Your task to perform on an android device: install app "Google Home" Image 0: 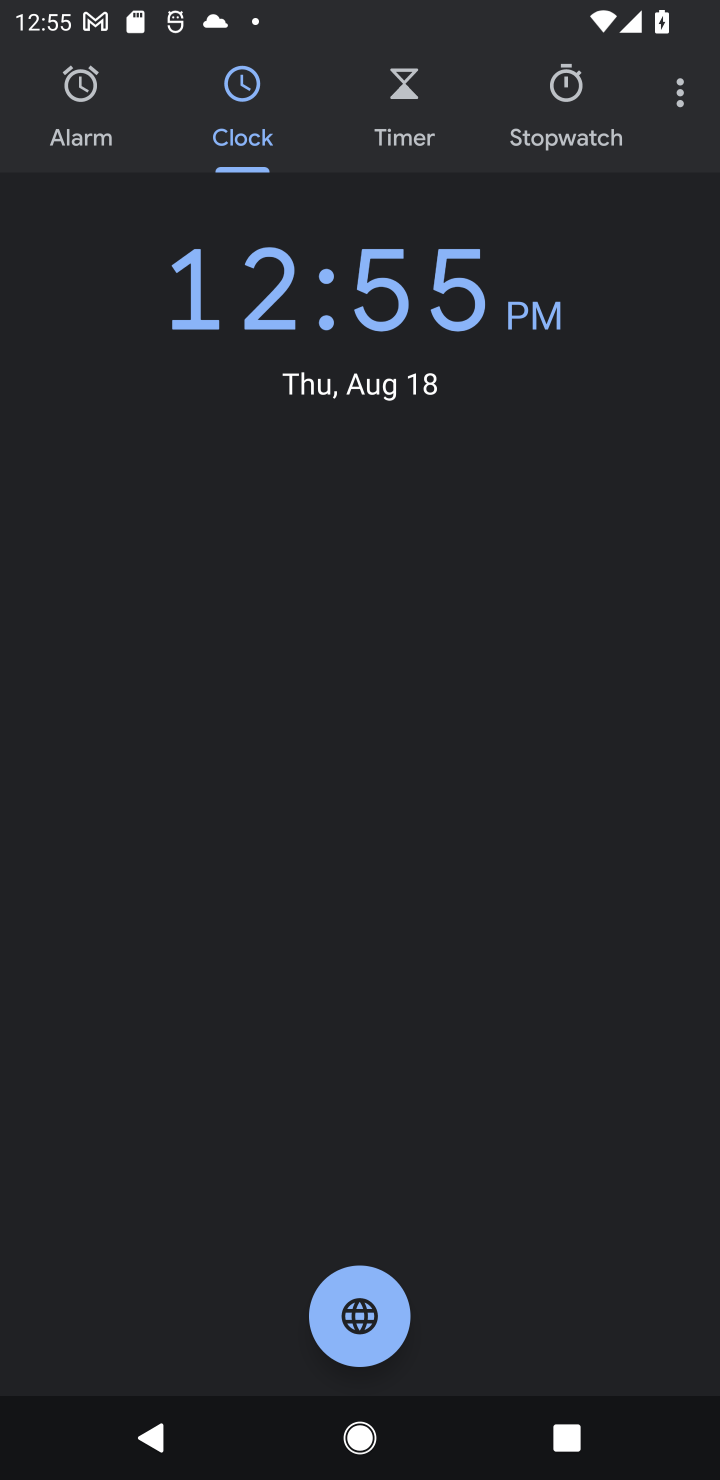
Step 0: press home button
Your task to perform on an android device: install app "Google Home" Image 1: 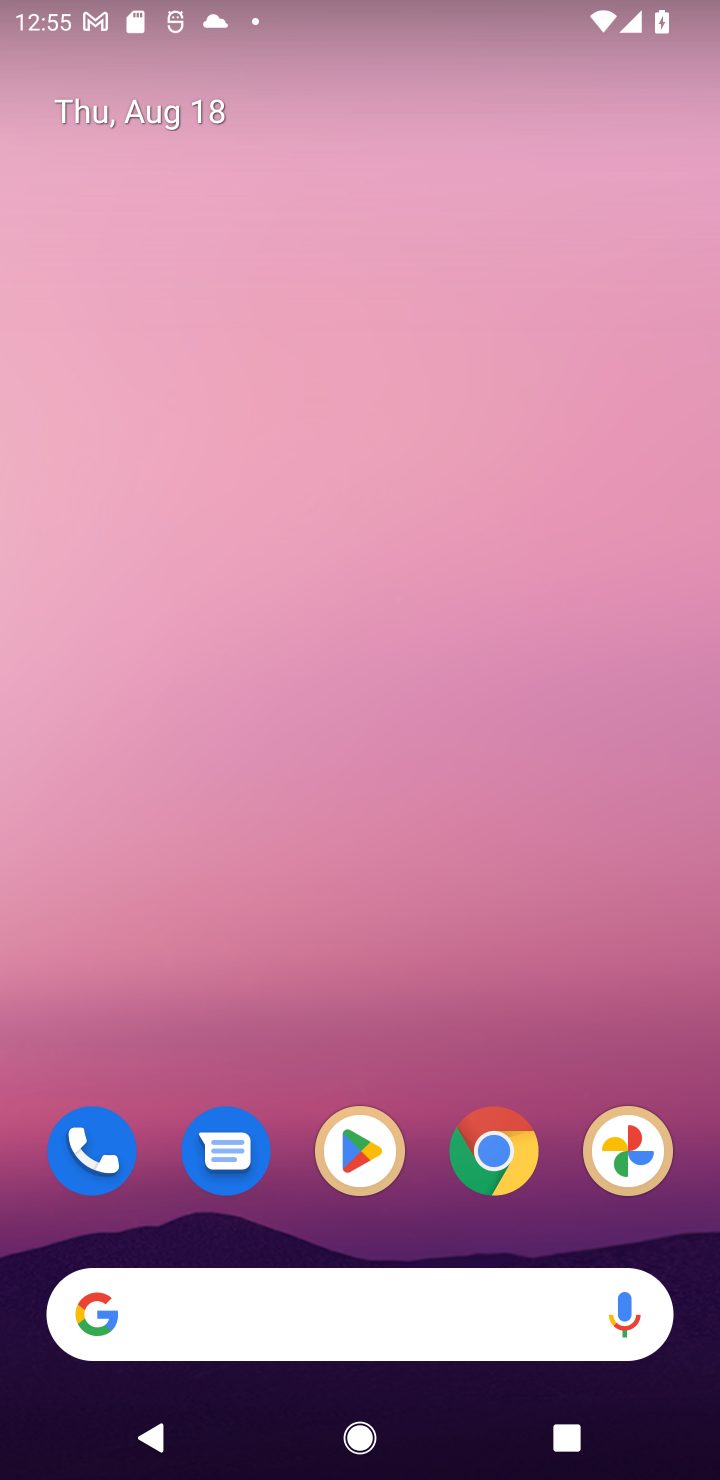
Step 1: drag from (329, 941) to (274, 132)
Your task to perform on an android device: install app "Google Home" Image 2: 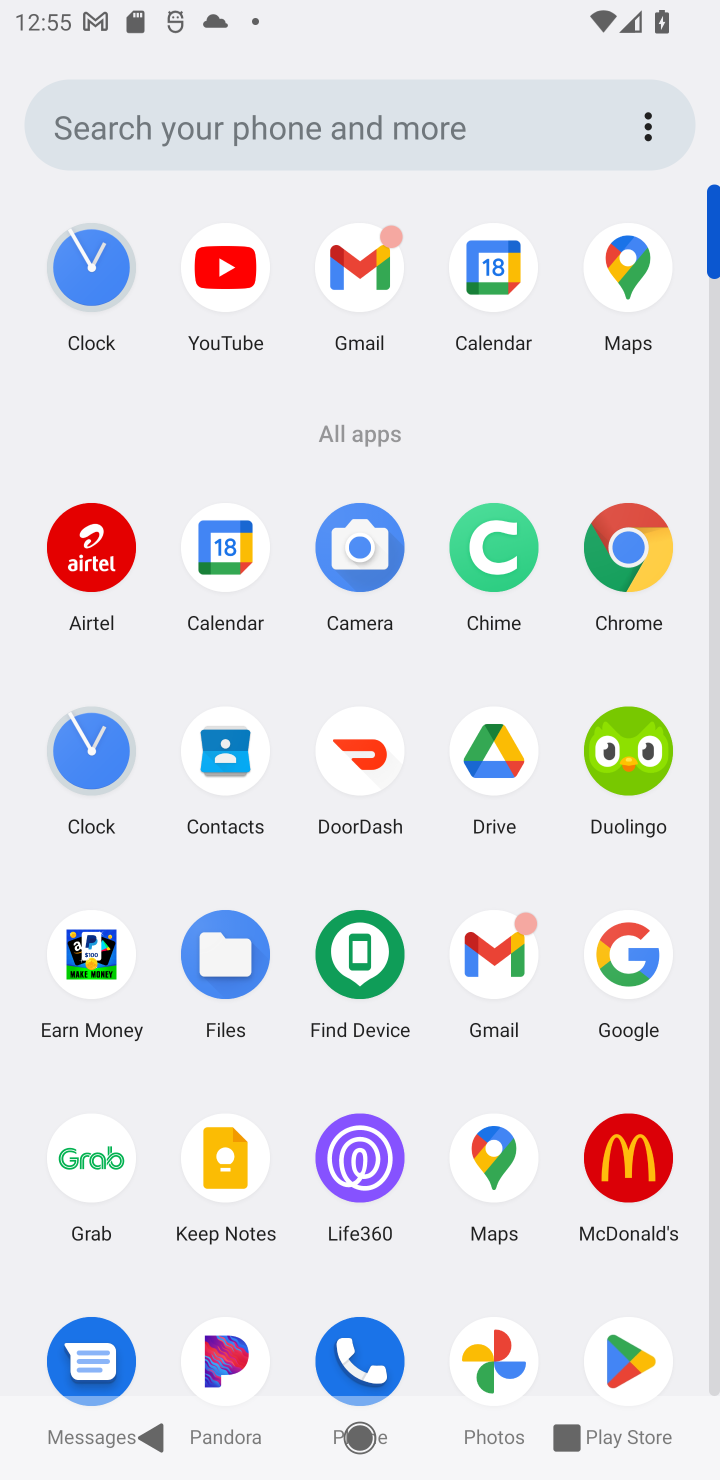
Step 2: click (631, 1345)
Your task to perform on an android device: install app "Google Home" Image 3: 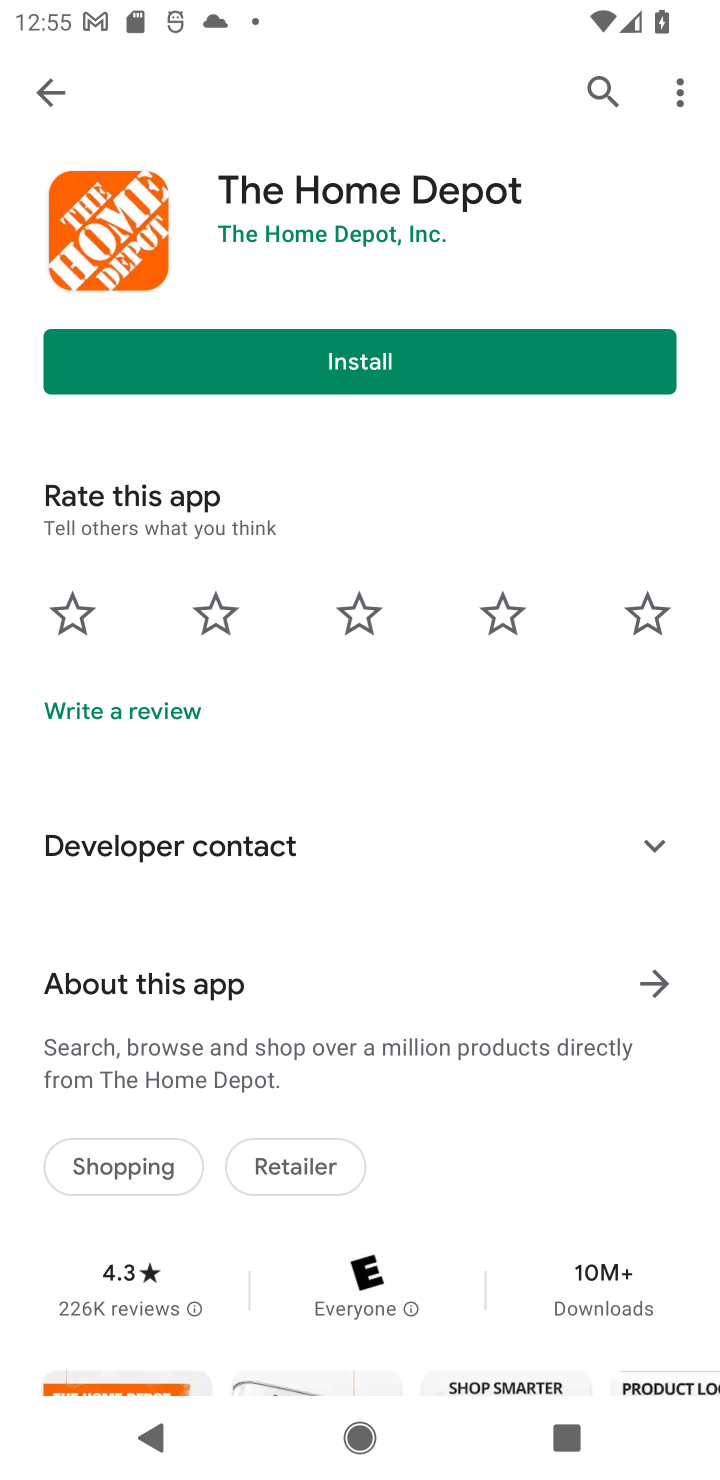
Step 3: click (38, 101)
Your task to perform on an android device: install app "Google Home" Image 4: 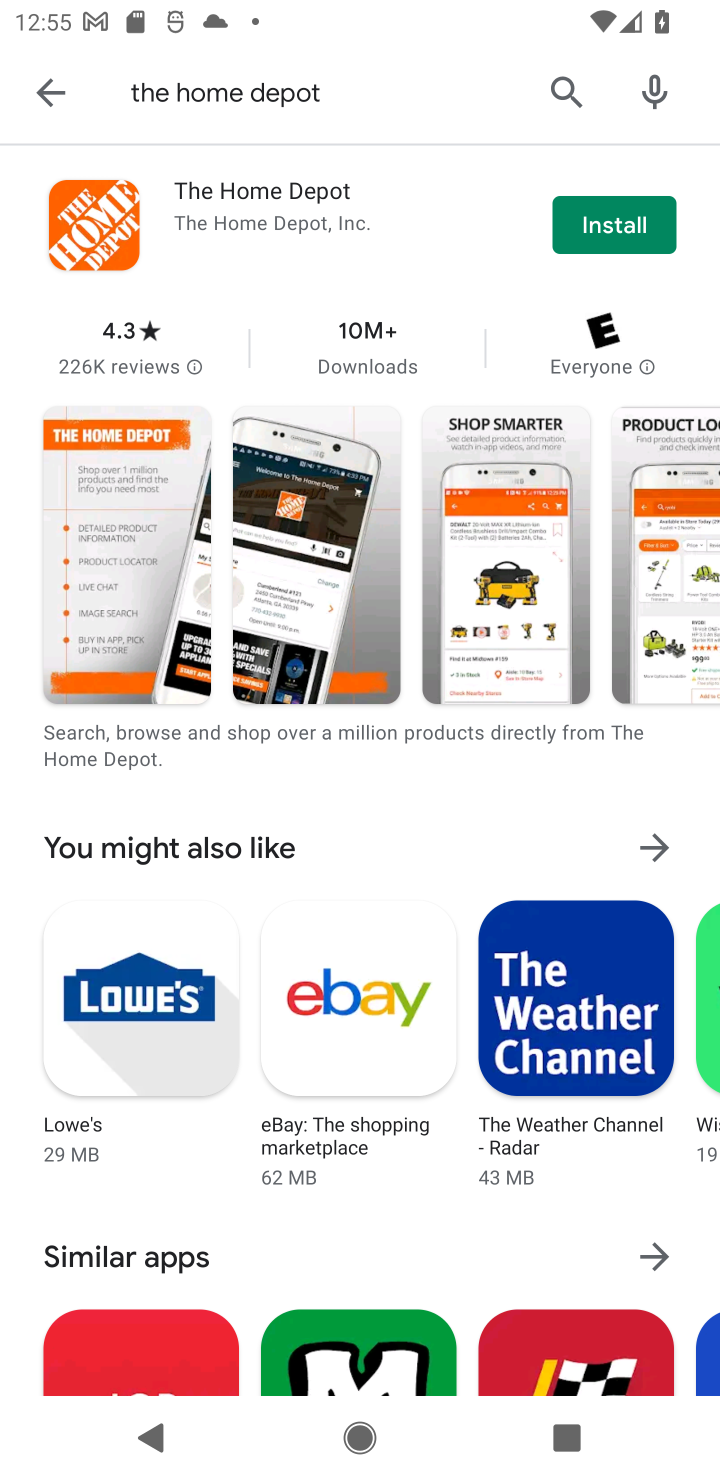
Step 4: click (47, 91)
Your task to perform on an android device: install app "Google Home" Image 5: 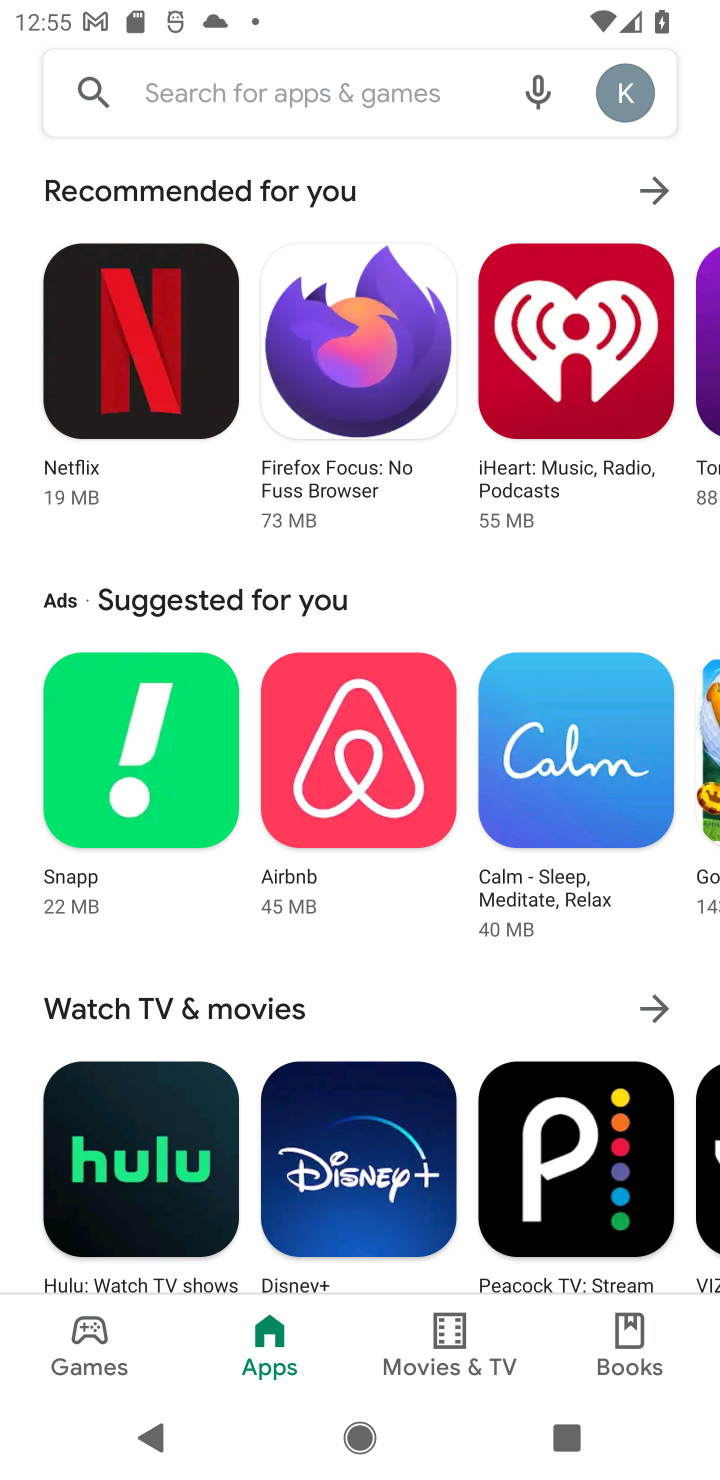
Step 5: click (259, 91)
Your task to perform on an android device: install app "Google Home" Image 6: 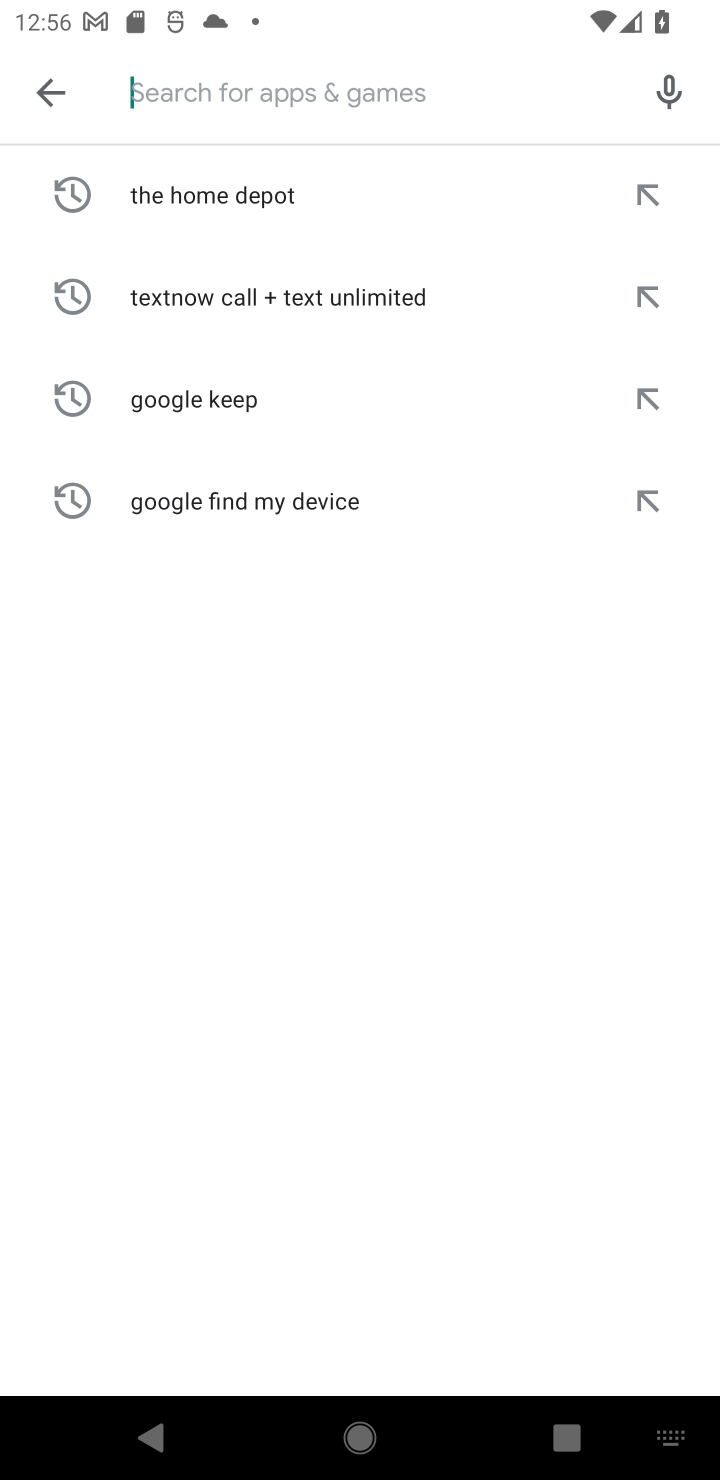
Step 6: type "Google Home"
Your task to perform on an android device: install app "Google Home" Image 7: 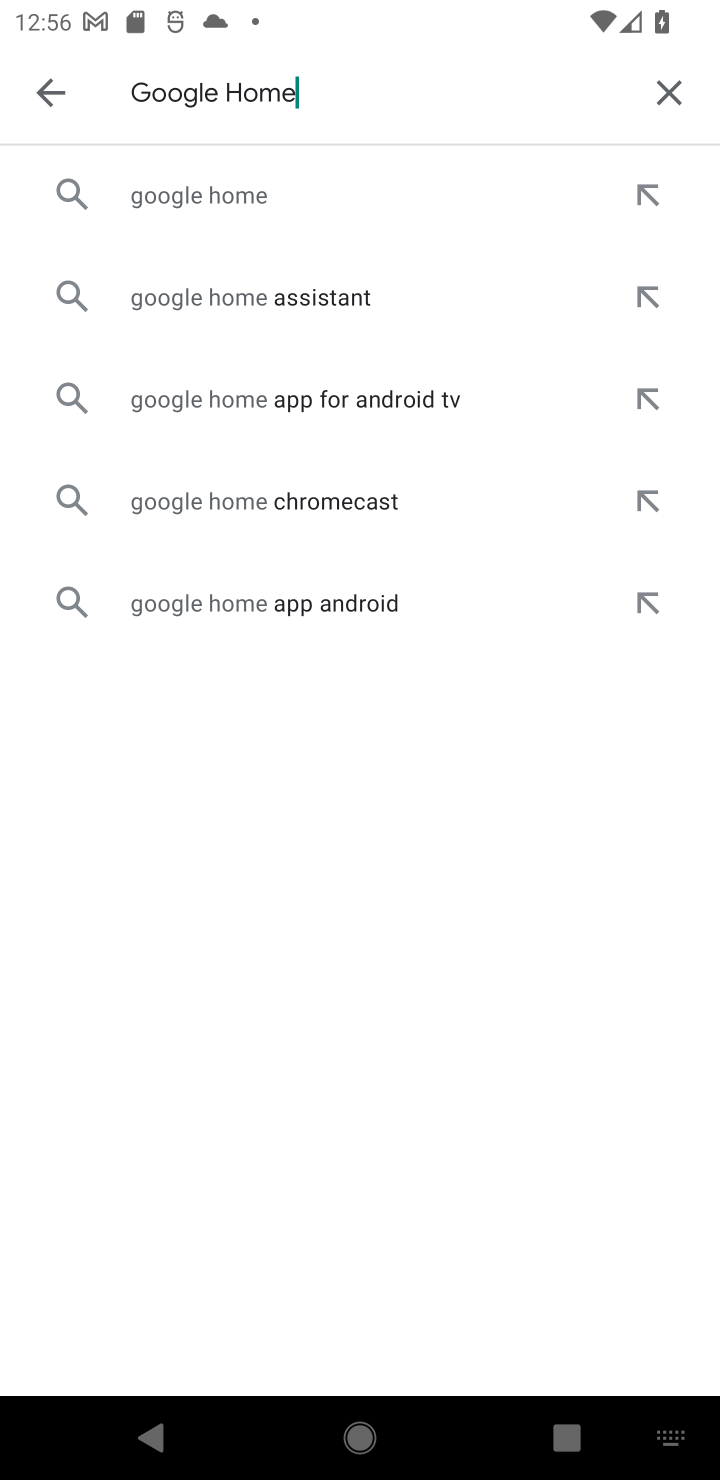
Step 7: click (234, 202)
Your task to perform on an android device: install app "Google Home" Image 8: 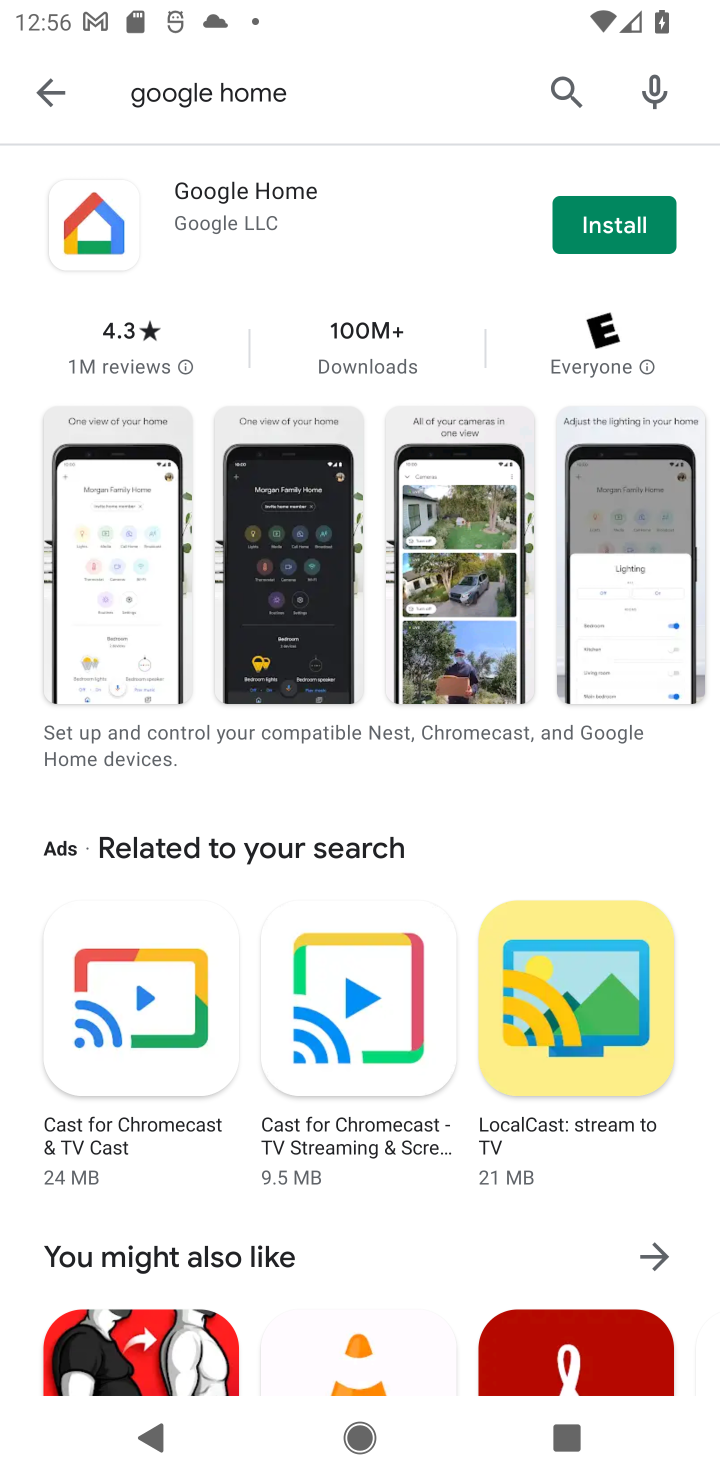
Step 8: click (559, 230)
Your task to perform on an android device: install app "Google Home" Image 9: 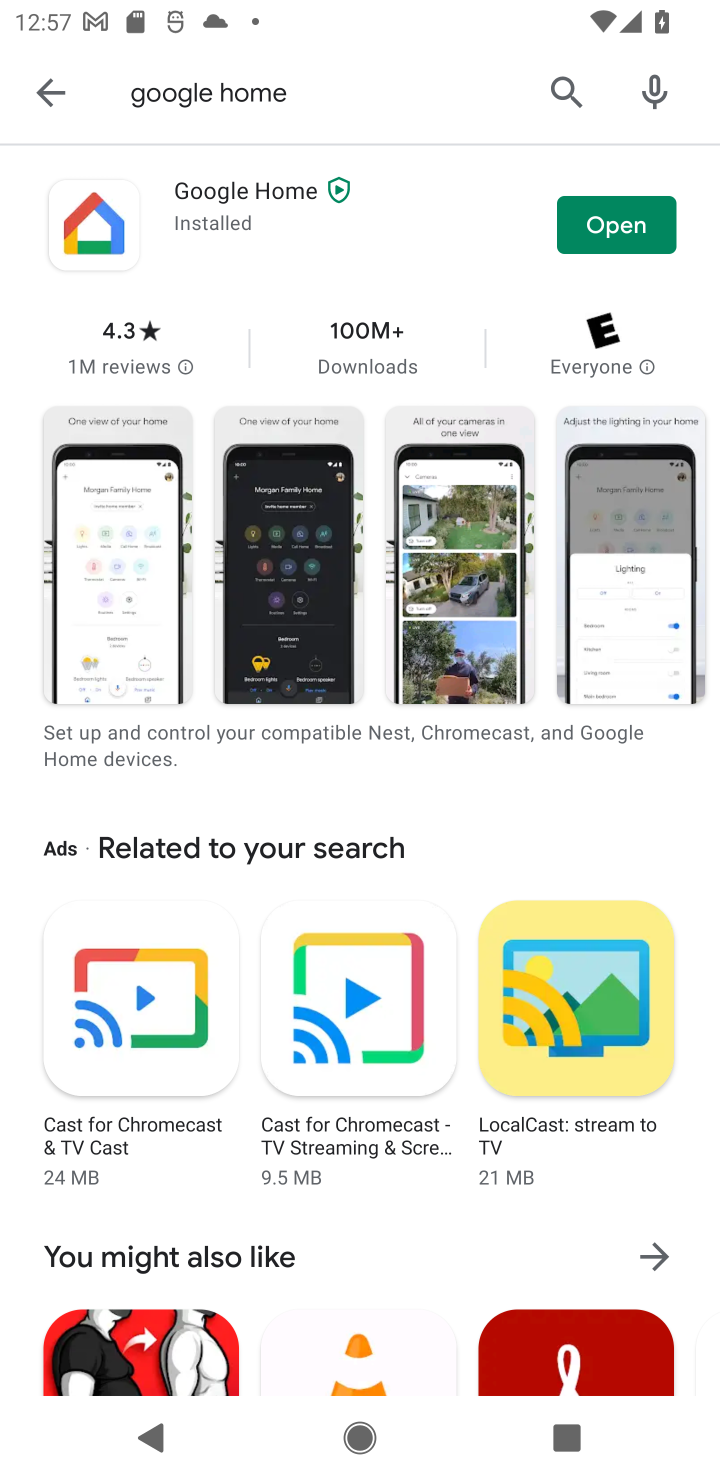
Step 9: click (601, 237)
Your task to perform on an android device: install app "Google Home" Image 10: 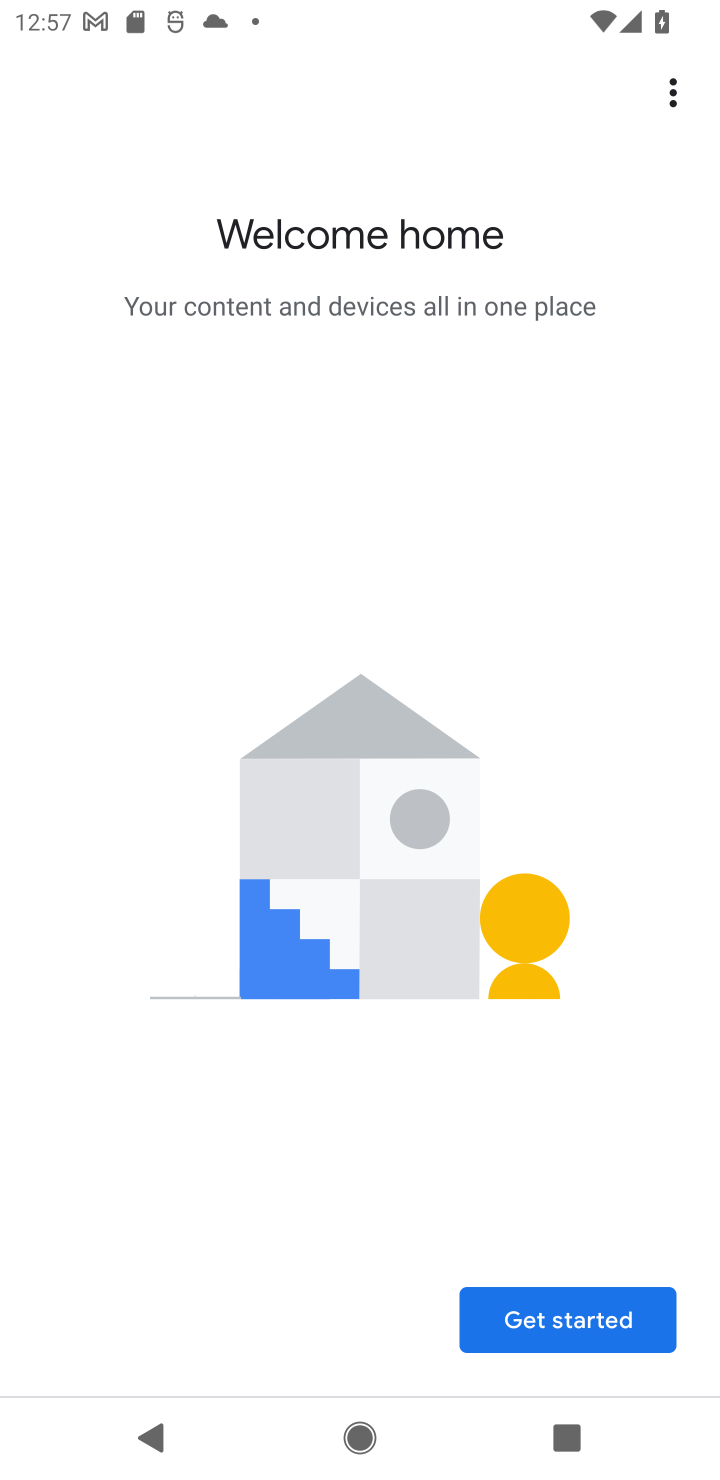
Step 10: task complete